Your task to perform on an android device: View the shopping cart on bestbuy. Search for "razer nari" on bestbuy, select the first entry, add it to the cart, then select checkout. Image 0: 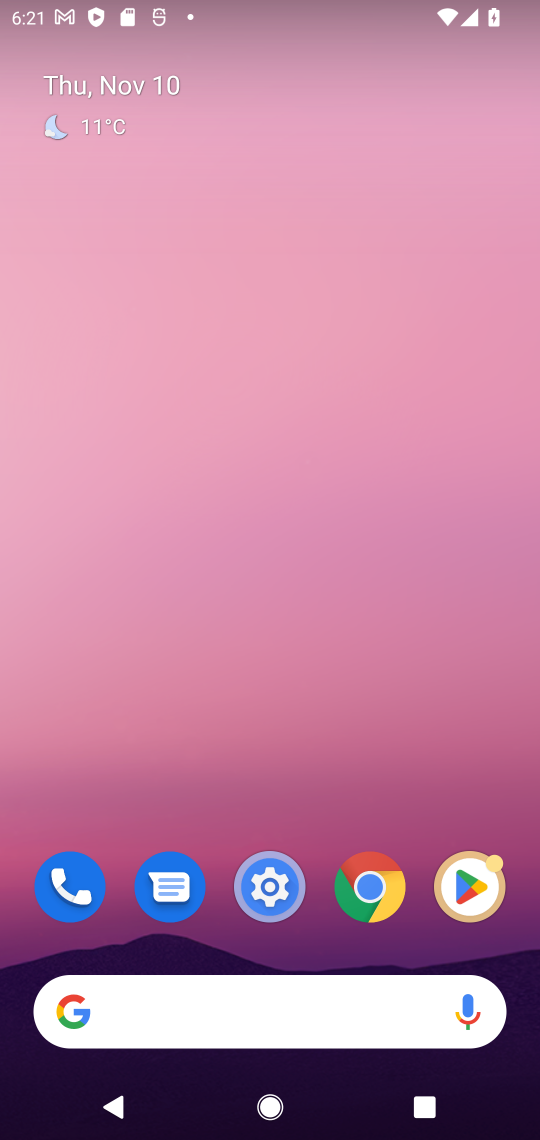
Step 0: click (203, 988)
Your task to perform on an android device: View the shopping cart on bestbuy. Search for "razer nari" on bestbuy, select the first entry, add it to the cart, then select checkout. Image 1: 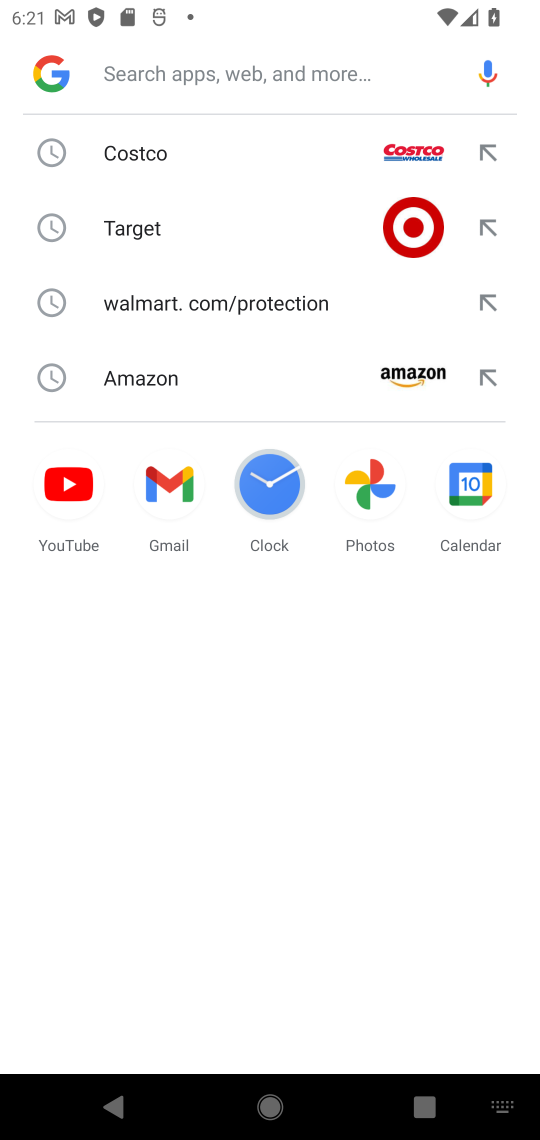
Step 1: type "bestbuy"
Your task to perform on an android device: View the shopping cart on bestbuy. Search for "razer nari" on bestbuy, select the first entry, add it to the cart, then select checkout. Image 2: 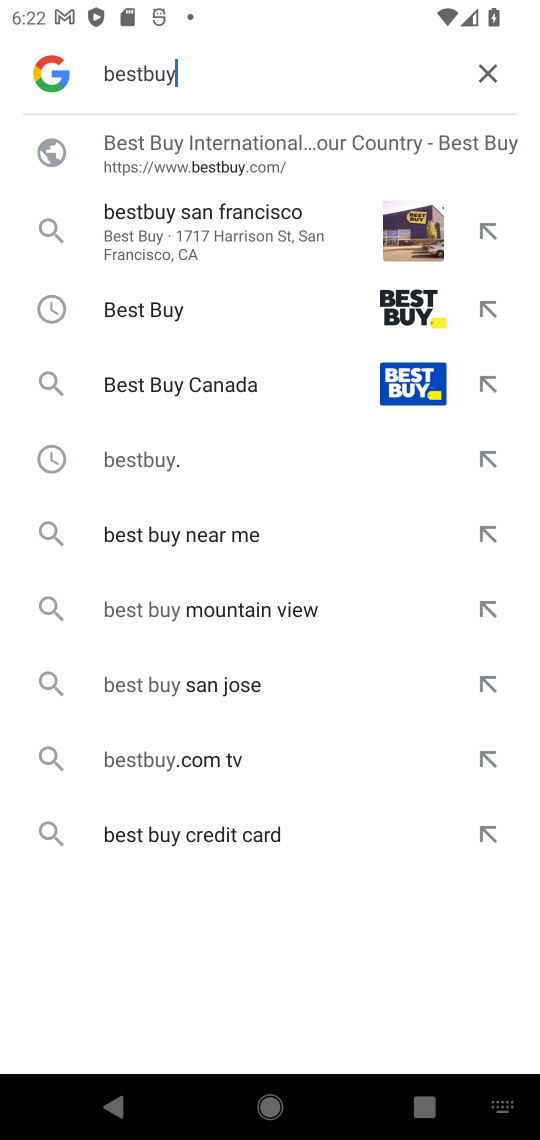
Step 2: click (124, 139)
Your task to perform on an android device: View the shopping cart on bestbuy. Search for "razer nari" on bestbuy, select the first entry, add it to the cart, then select checkout. Image 3: 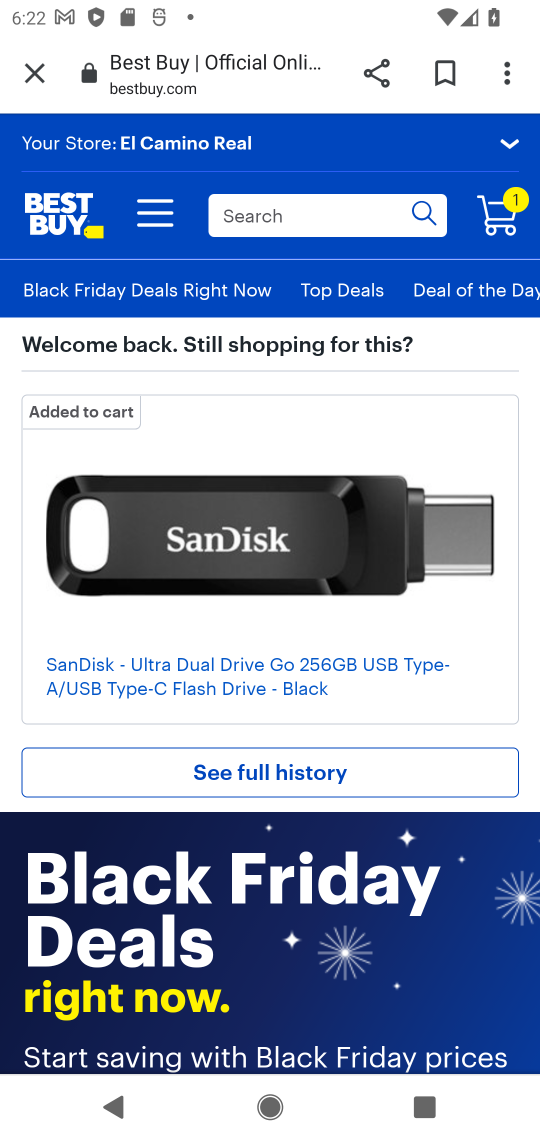
Step 3: click (284, 202)
Your task to perform on an android device: View the shopping cart on bestbuy. Search for "razer nari" on bestbuy, select the first entry, add it to the cart, then select checkout. Image 4: 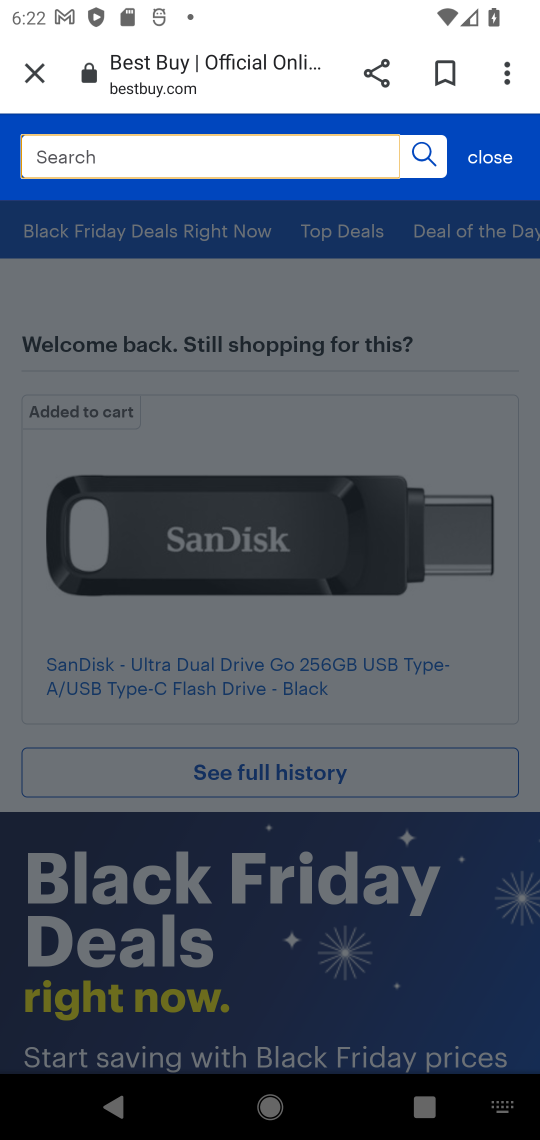
Step 4: type "razer nari"
Your task to perform on an android device: View the shopping cart on bestbuy. Search for "razer nari" on bestbuy, select the first entry, add it to the cart, then select checkout. Image 5: 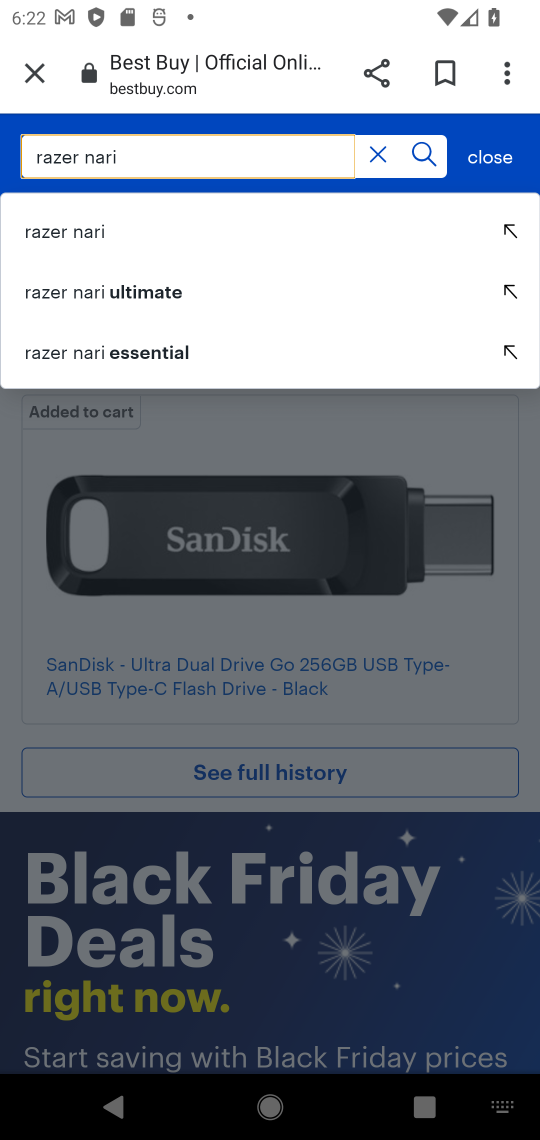
Step 5: click (92, 226)
Your task to perform on an android device: View the shopping cart on bestbuy. Search for "razer nari" on bestbuy, select the first entry, add it to the cart, then select checkout. Image 6: 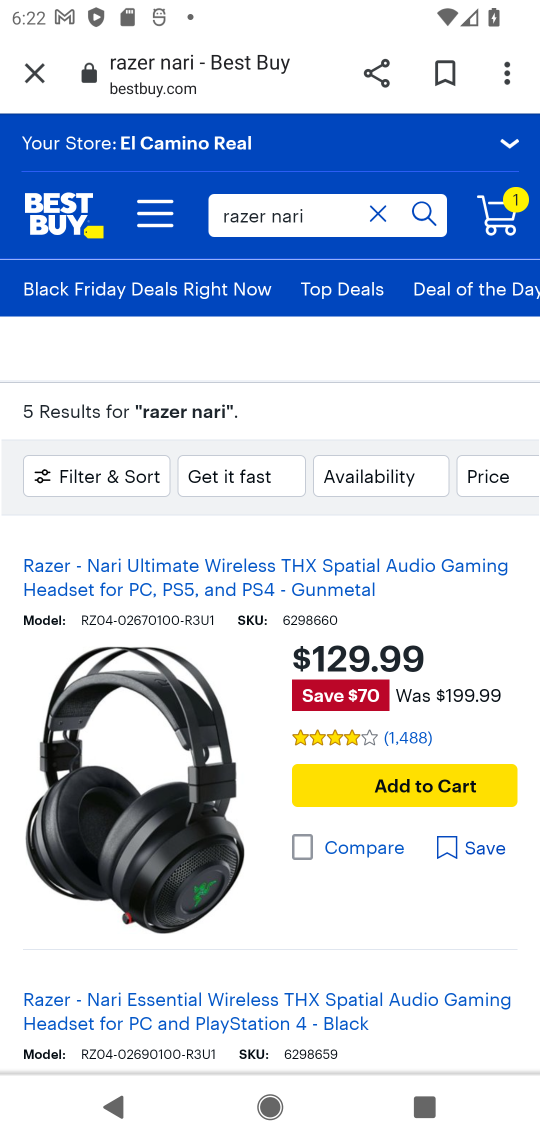
Step 6: click (453, 779)
Your task to perform on an android device: View the shopping cart on bestbuy. Search for "razer nari" on bestbuy, select the first entry, add it to the cart, then select checkout. Image 7: 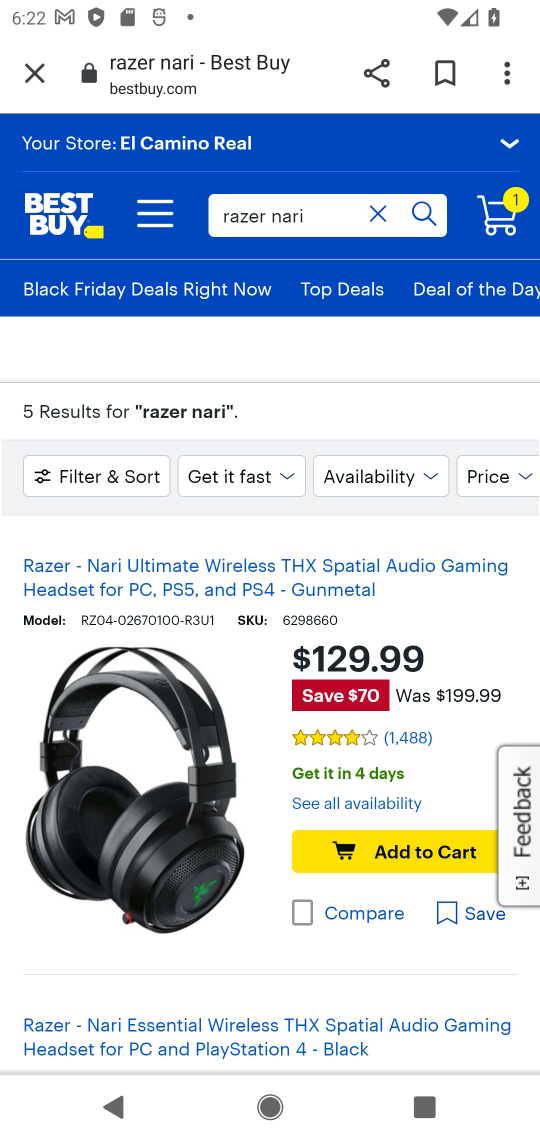
Step 7: click (348, 835)
Your task to perform on an android device: View the shopping cart on bestbuy. Search for "razer nari" on bestbuy, select the first entry, add it to the cart, then select checkout. Image 8: 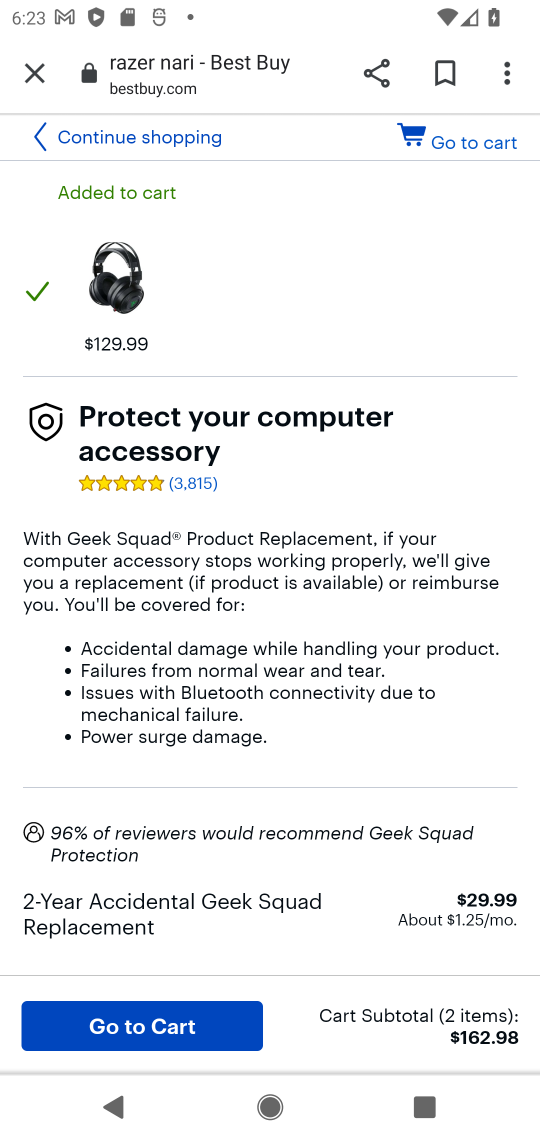
Step 8: click (193, 1030)
Your task to perform on an android device: View the shopping cart on bestbuy. Search for "razer nari" on bestbuy, select the first entry, add it to the cart, then select checkout. Image 9: 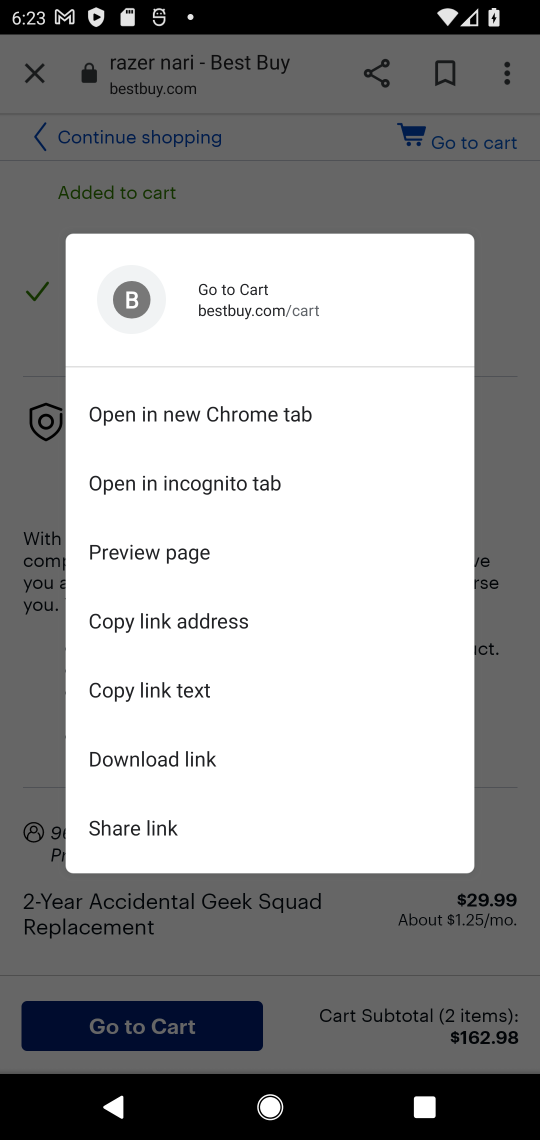
Step 9: click (124, 1017)
Your task to perform on an android device: View the shopping cart on bestbuy. Search for "razer nari" on bestbuy, select the first entry, add it to the cart, then select checkout. Image 10: 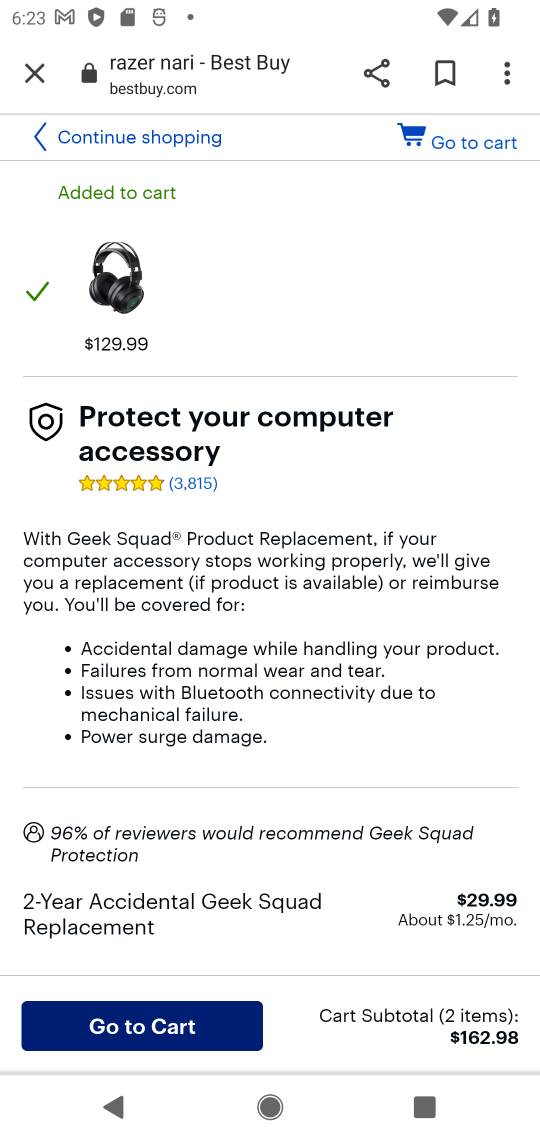
Step 10: click (127, 1024)
Your task to perform on an android device: View the shopping cart on bestbuy. Search for "razer nari" on bestbuy, select the first entry, add it to the cart, then select checkout. Image 11: 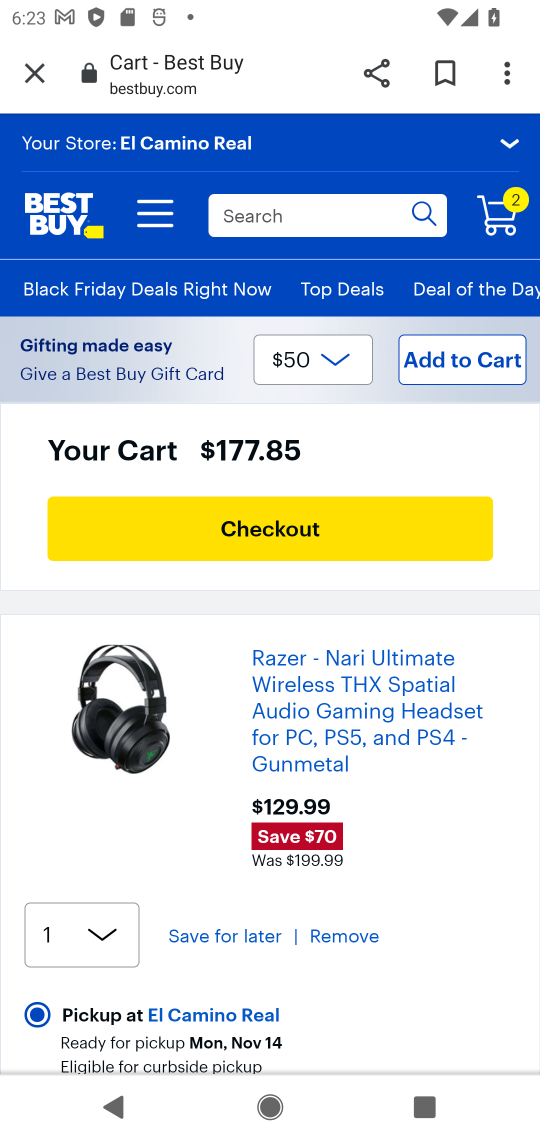
Step 11: click (276, 524)
Your task to perform on an android device: View the shopping cart on bestbuy. Search for "razer nari" on bestbuy, select the first entry, add it to the cart, then select checkout. Image 12: 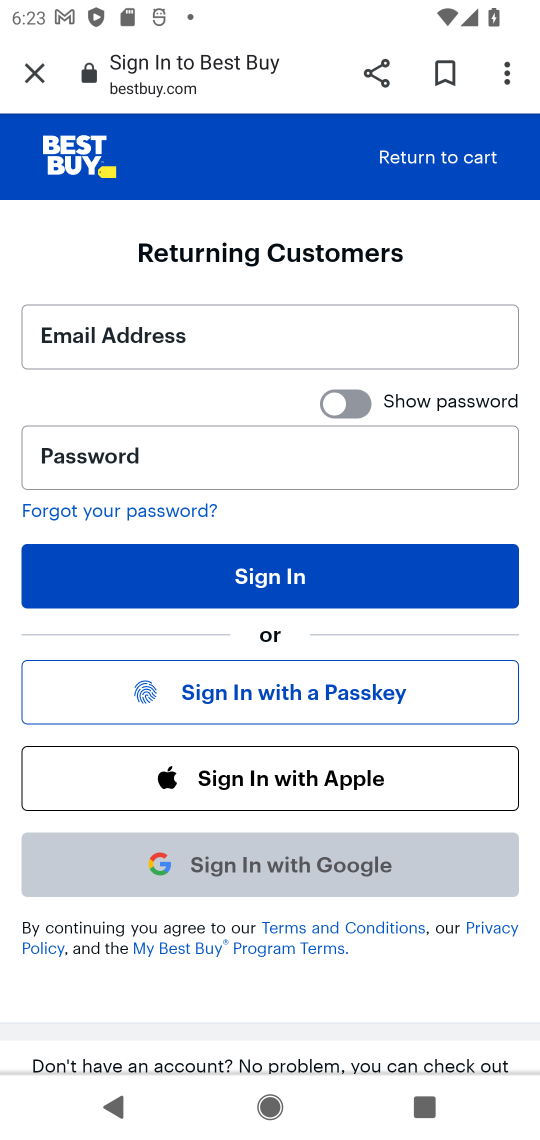
Step 12: task complete